Your task to perform on an android device: change your default location settings in chrome Image 0: 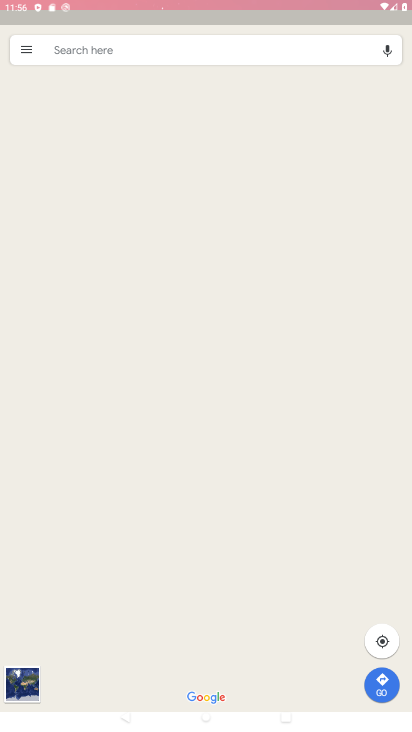
Step 0: click (212, 129)
Your task to perform on an android device: change your default location settings in chrome Image 1: 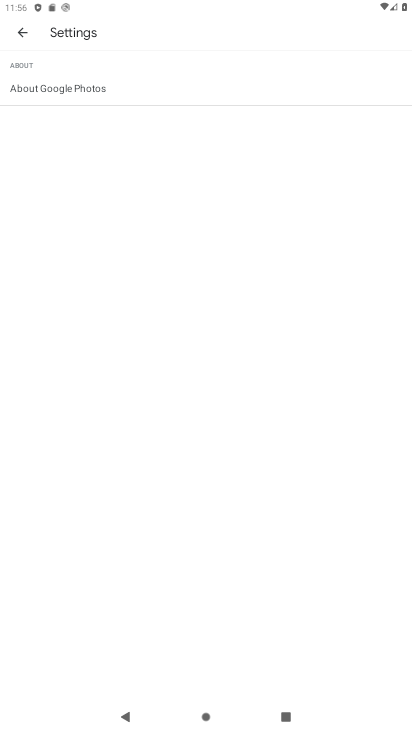
Step 1: press home button
Your task to perform on an android device: change your default location settings in chrome Image 2: 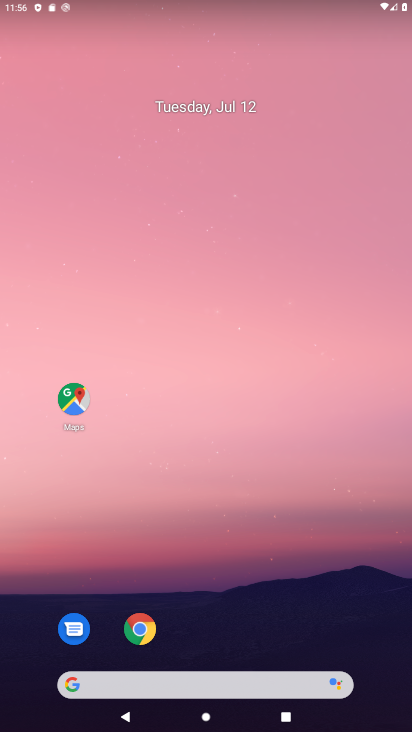
Step 2: click (126, 645)
Your task to perform on an android device: change your default location settings in chrome Image 3: 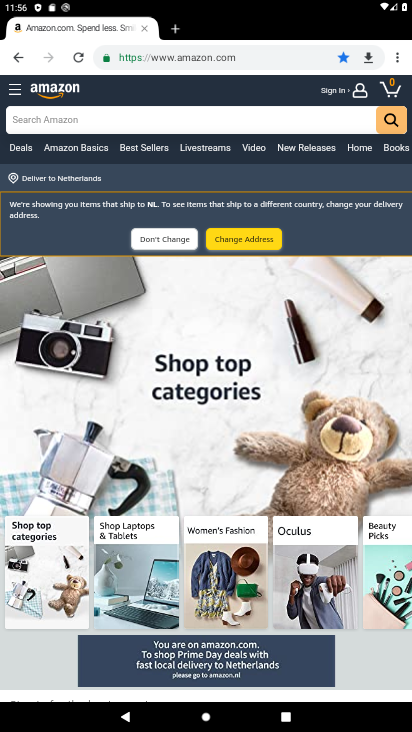
Step 3: click (402, 57)
Your task to perform on an android device: change your default location settings in chrome Image 4: 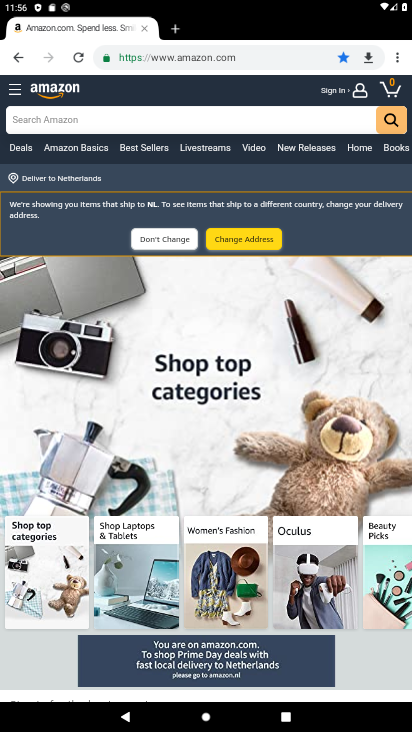
Step 4: click (402, 57)
Your task to perform on an android device: change your default location settings in chrome Image 5: 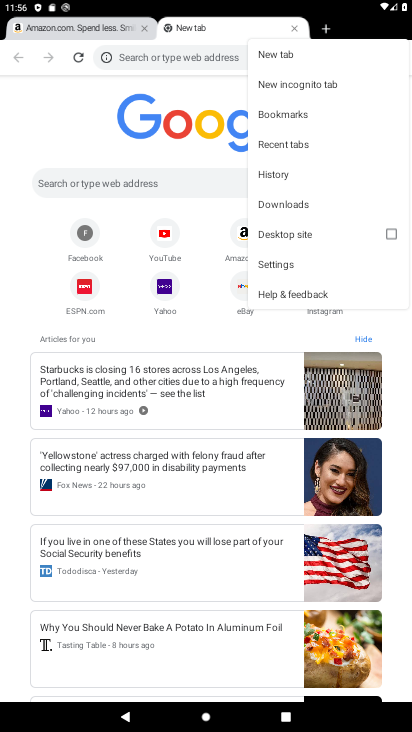
Step 5: click (310, 269)
Your task to perform on an android device: change your default location settings in chrome Image 6: 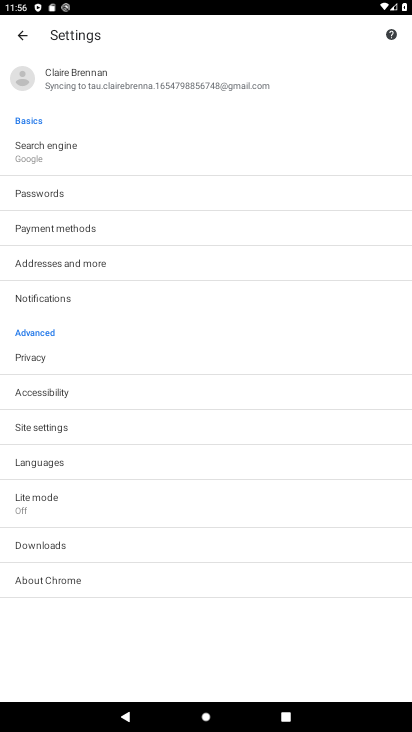
Step 6: click (90, 427)
Your task to perform on an android device: change your default location settings in chrome Image 7: 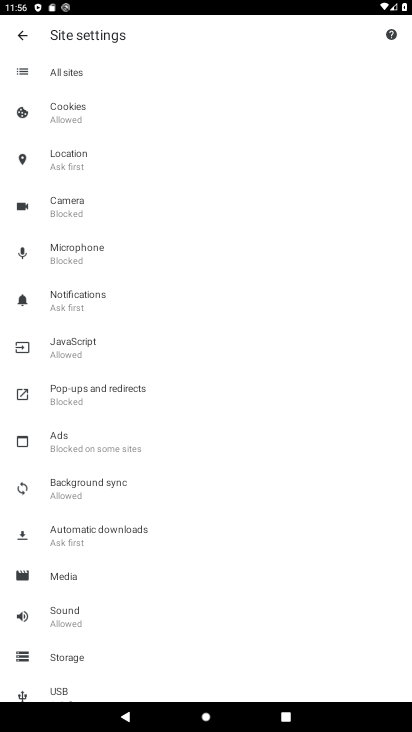
Step 7: click (102, 166)
Your task to perform on an android device: change your default location settings in chrome Image 8: 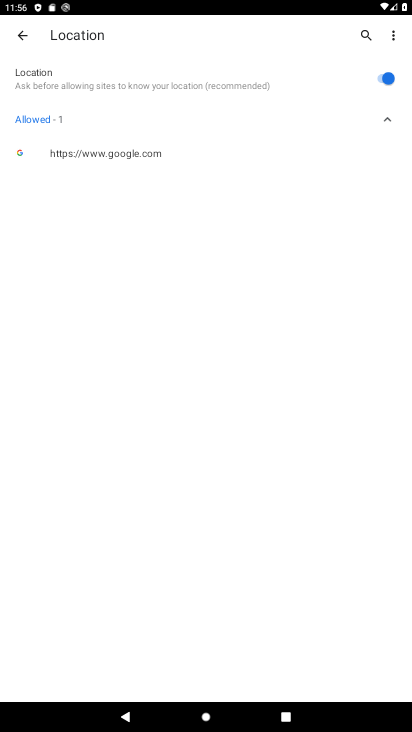
Step 8: click (373, 72)
Your task to perform on an android device: change your default location settings in chrome Image 9: 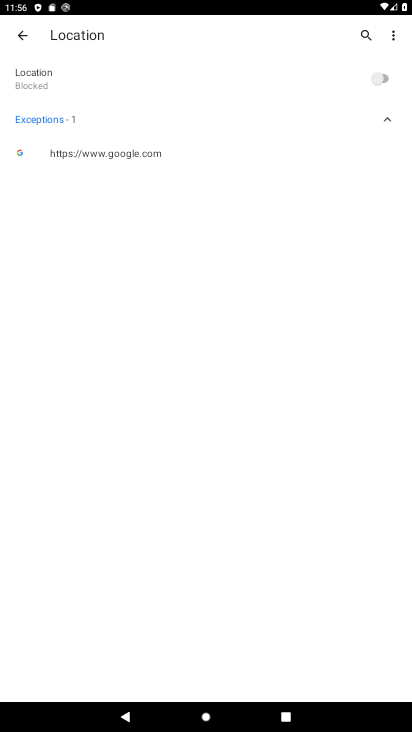
Step 9: task complete